Your task to perform on an android device: turn off location Image 0: 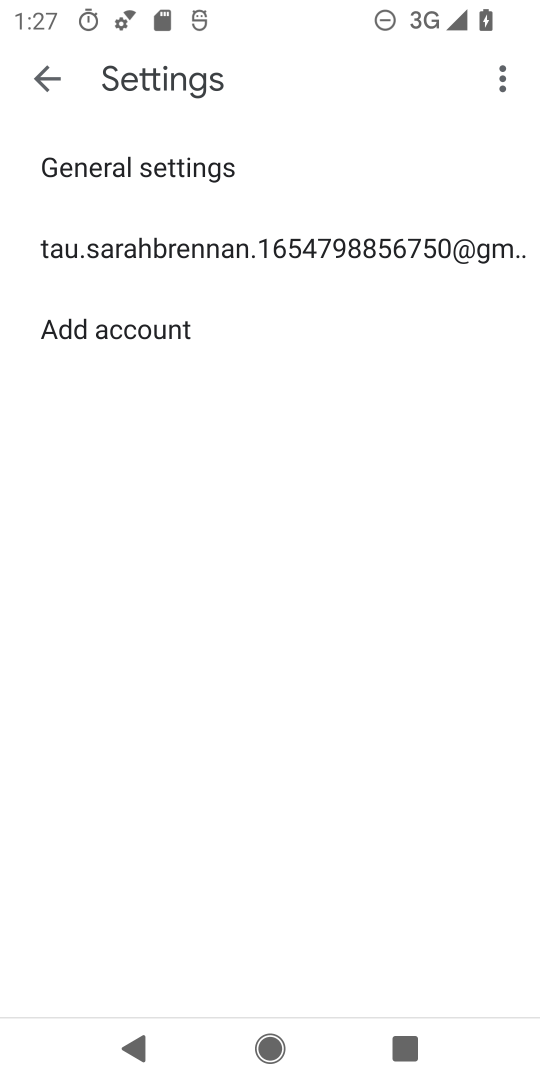
Step 0: press home button
Your task to perform on an android device: turn off location Image 1: 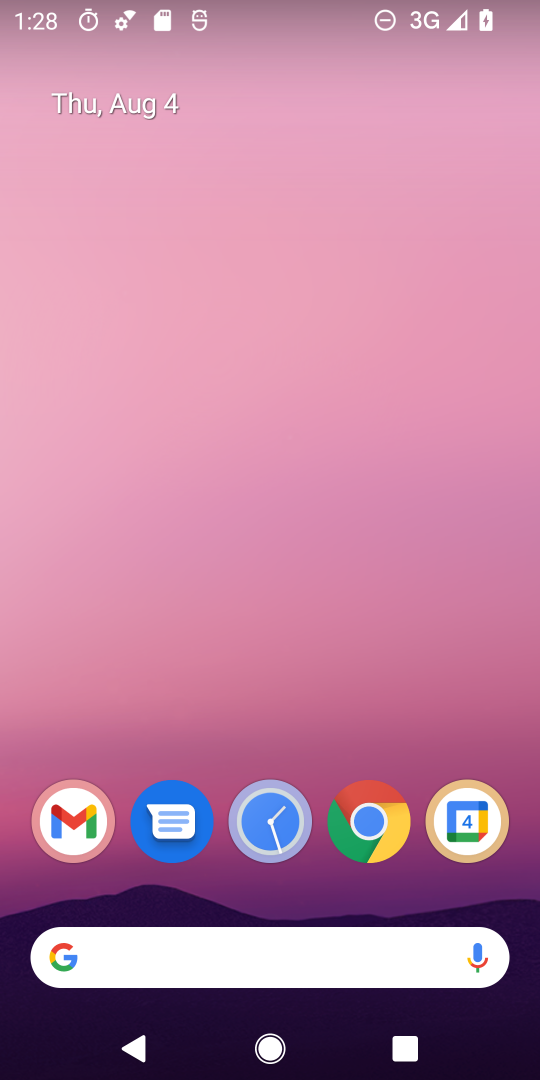
Step 1: drag from (514, 912) to (288, 2)
Your task to perform on an android device: turn off location Image 2: 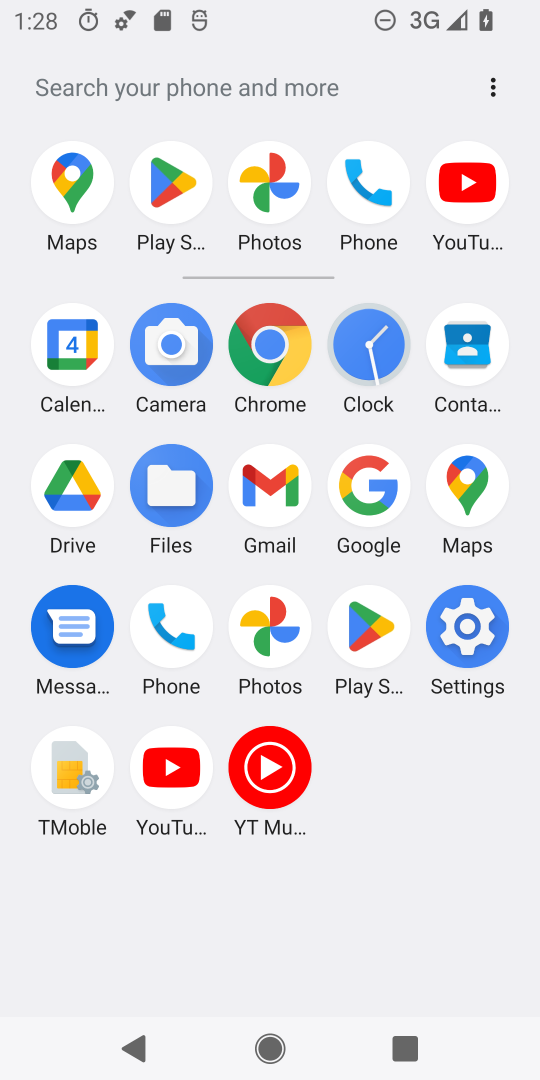
Step 2: click (446, 651)
Your task to perform on an android device: turn off location Image 3: 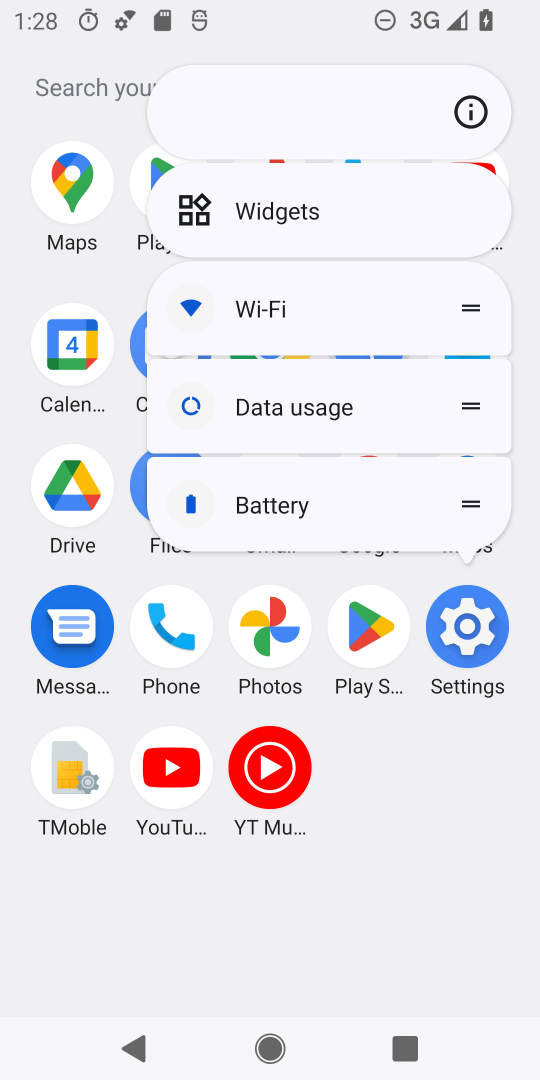
Step 3: click (450, 646)
Your task to perform on an android device: turn off location Image 4: 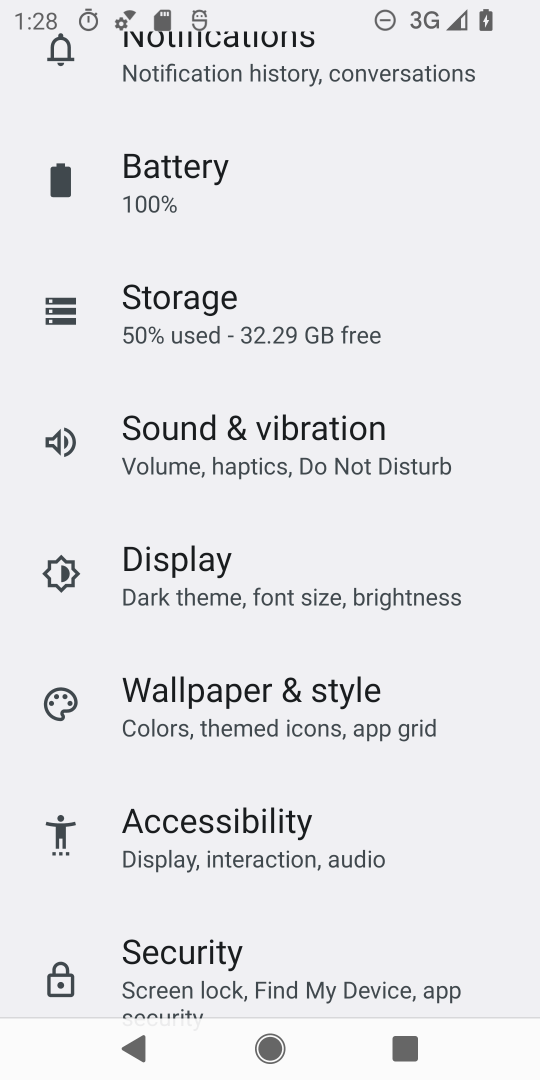
Step 4: drag from (156, 927) to (207, 198)
Your task to perform on an android device: turn off location Image 5: 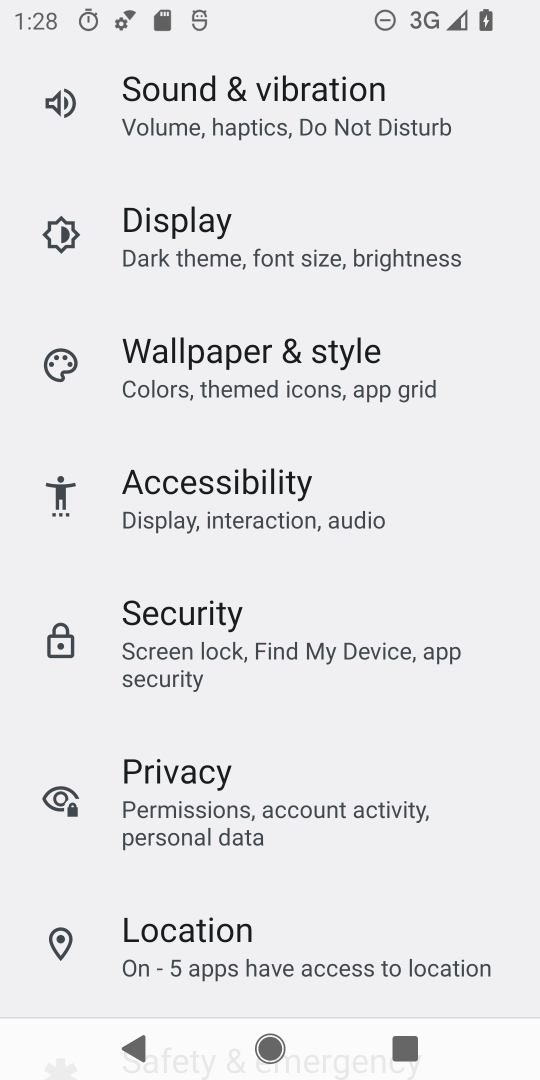
Step 5: click (214, 949)
Your task to perform on an android device: turn off location Image 6: 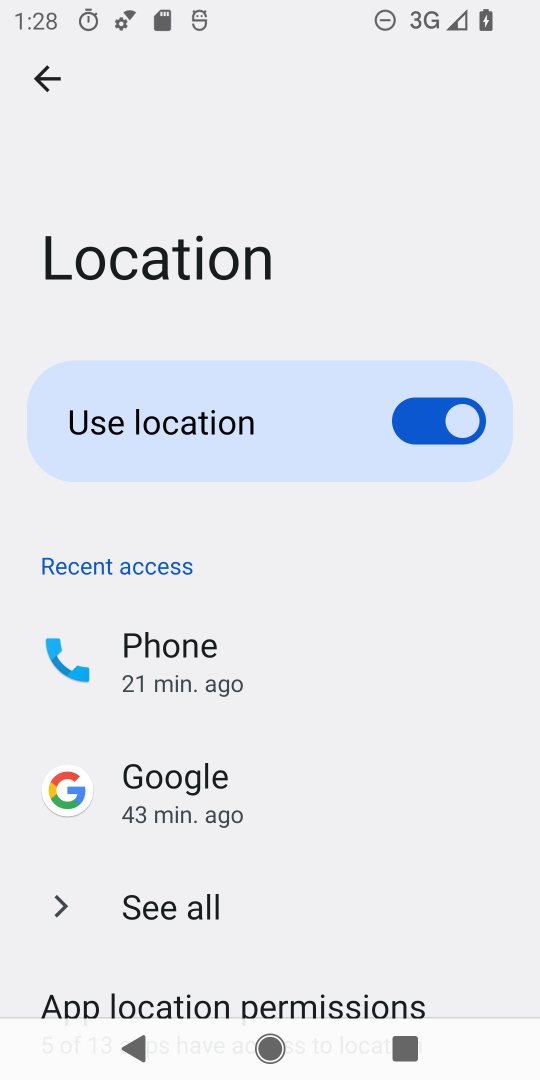
Step 6: click (437, 456)
Your task to perform on an android device: turn off location Image 7: 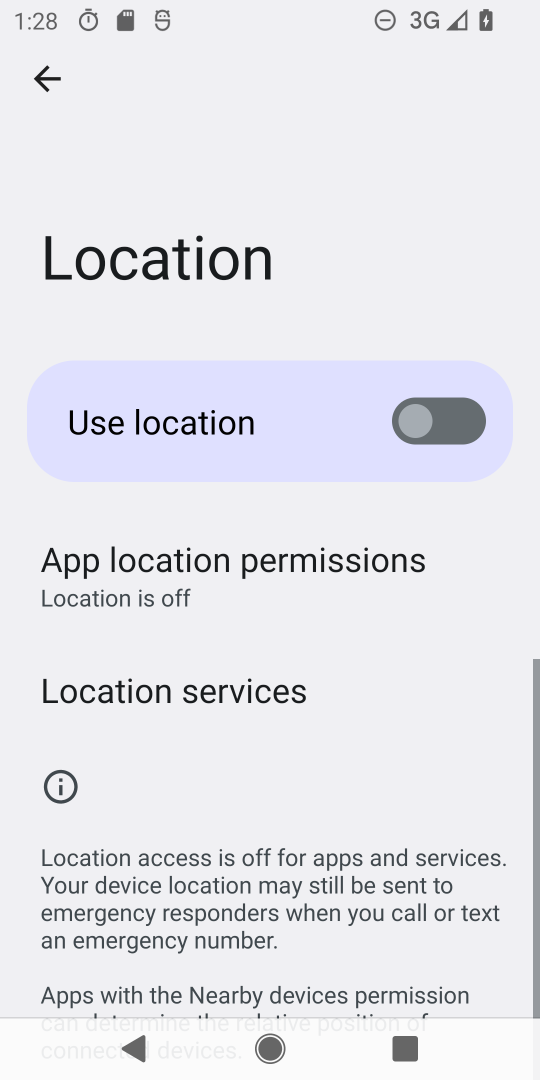
Step 7: task complete